Your task to perform on an android device: Open calendar and show me the second week of next month Image 0: 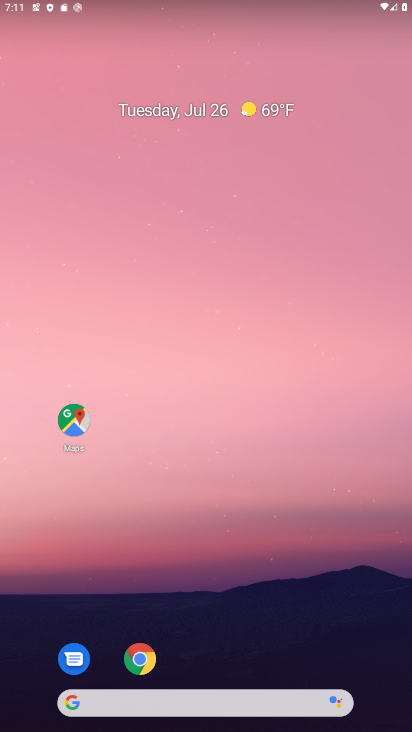
Step 0: drag from (245, 718) to (329, 168)
Your task to perform on an android device: Open calendar and show me the second week of next month Image 1: 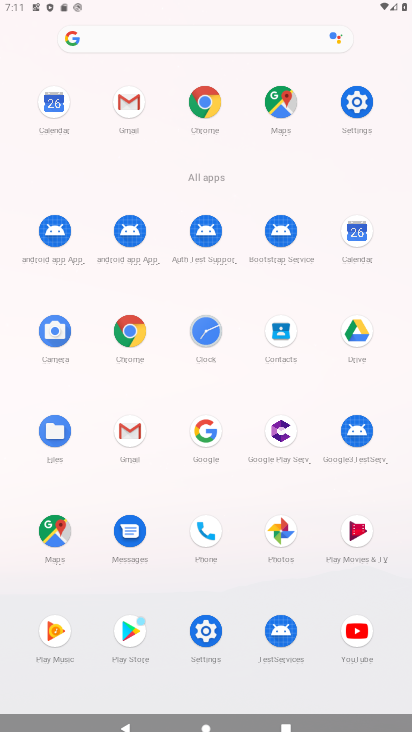
Step 1: click (351, 229)
Your task to perform on an android device: Open calendar and show me the second week of next month Image 2: 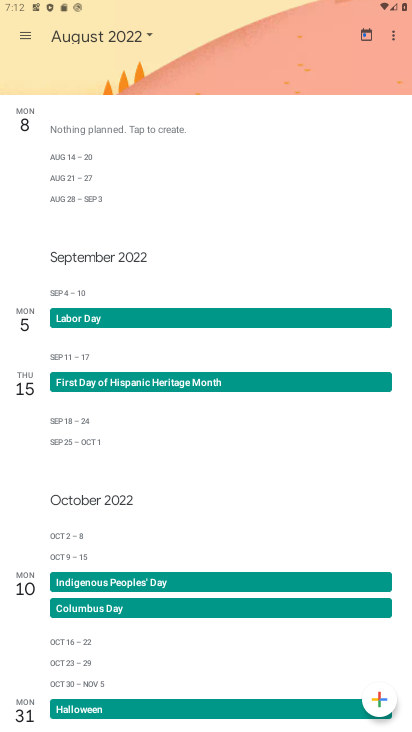
Step 2: click (18, 42)
Your task to perform on an android device: Open calendar and show me the second week of next month Image 3: 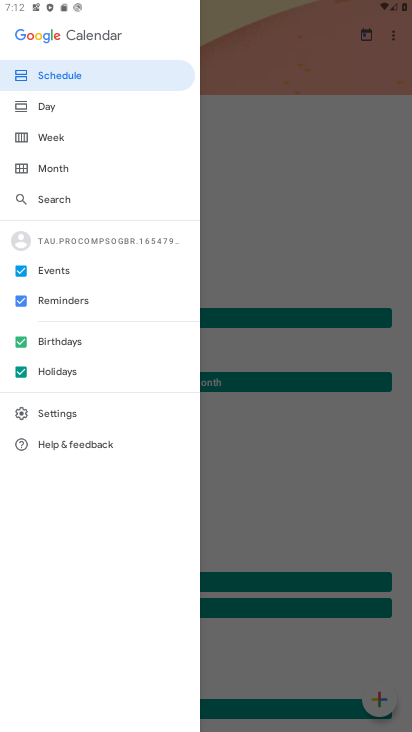
Step 3: click (34, 168)
Your task to perform on an android device: Open calendar and show me the second week of next month Image 4: 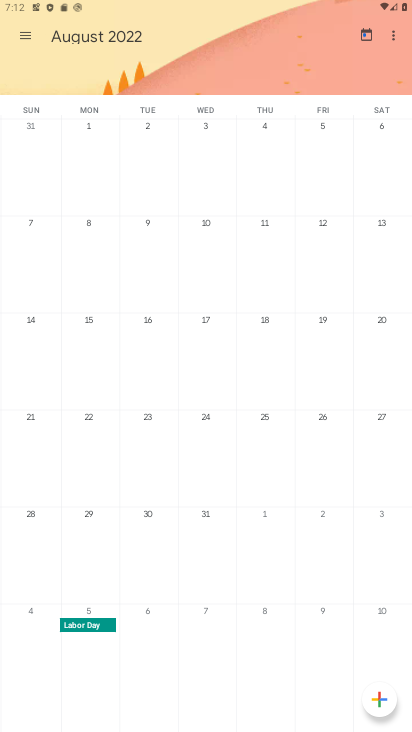
Step 4: click (80, 226)
Your task to perform on an android device: Open calendar and show me the second week of next month Image 5: 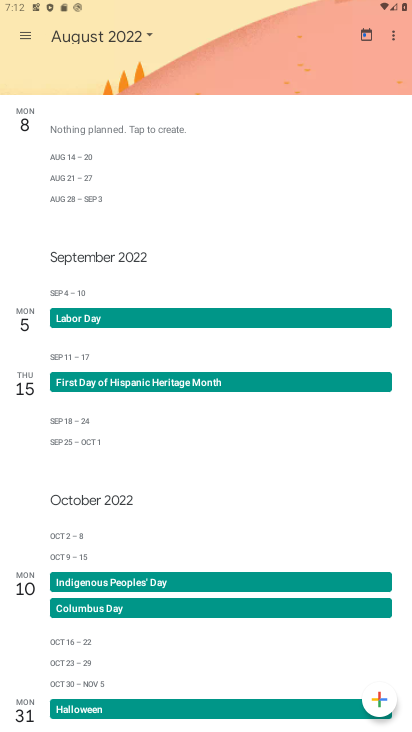
Step 5: task complete